Your task to perform on an android device: Open calendar and show me the first week of next month Image 0: 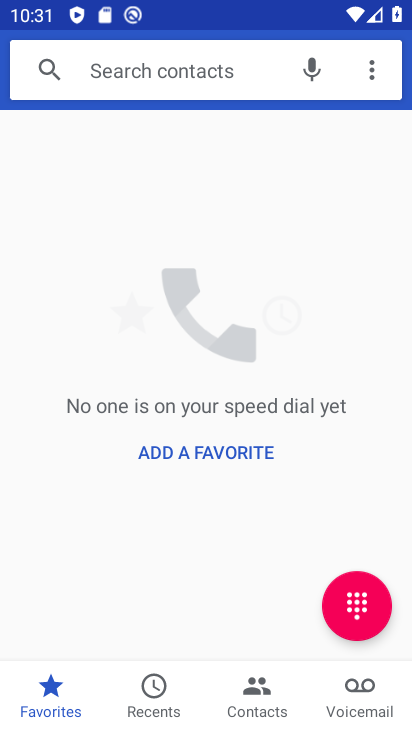
Step 0: press home button
Your task to perform on an android device: Open calendar and show me the first week of next month Image 1: 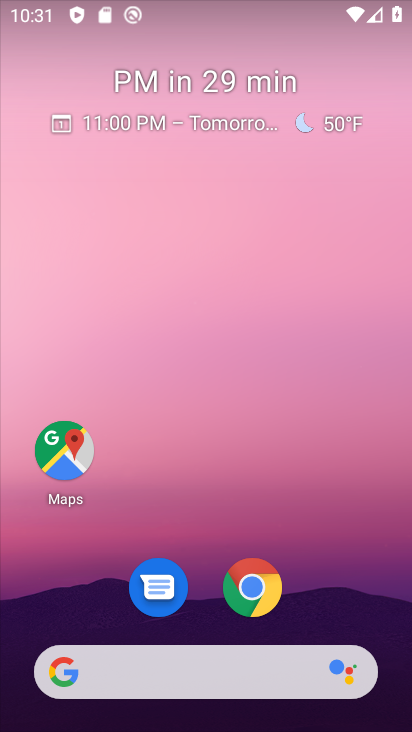
Step 1: drag from (196, 628) to (107, 0)
Your task to perform on an android device: Open calendar and show me the first week of next month Image 2: 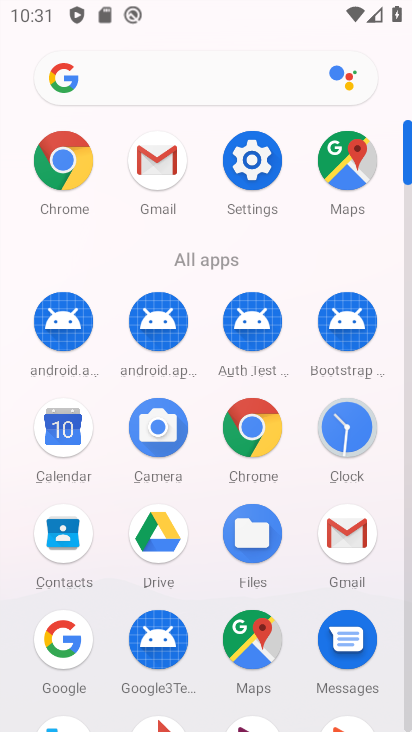
Step 2: click (49, 430)
Your task to perform on an android device: Open calendar and show me the first week of next month Image 3: 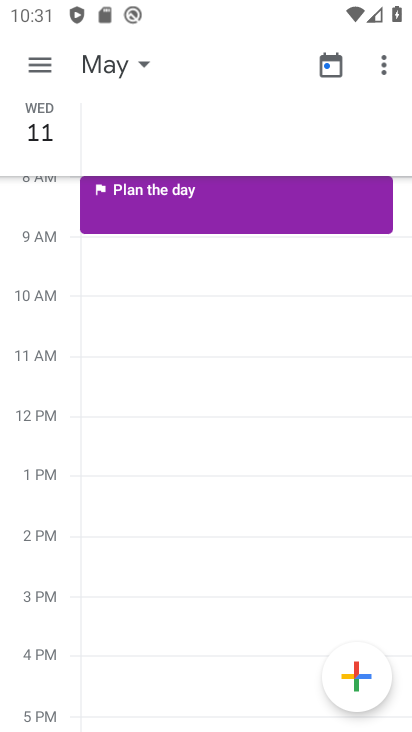
Step 3: click (36, 50)
Your task to perform on an android device: Open calendar and show me the first week of next month Image 4: 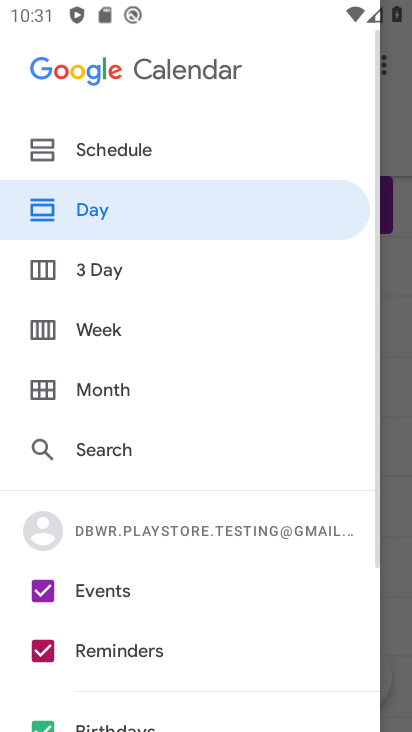
Step 4: click (96, 334)
Your task to perform on an android device: Open calendar and show me the first week of next month Image 5: 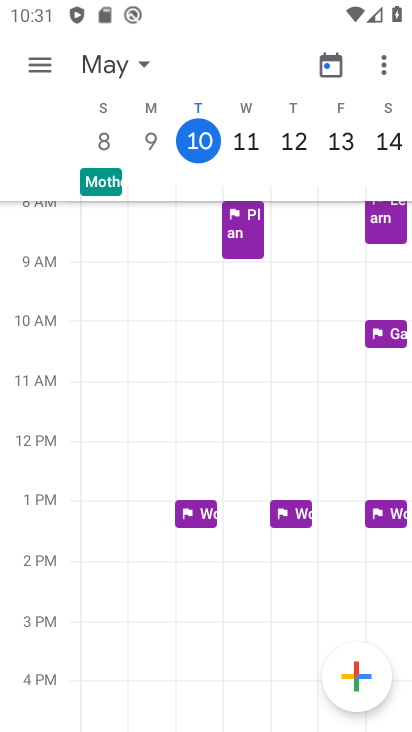
Step 5: task complete